Your task to perform on an android device: When is my next meeting? Image 0: 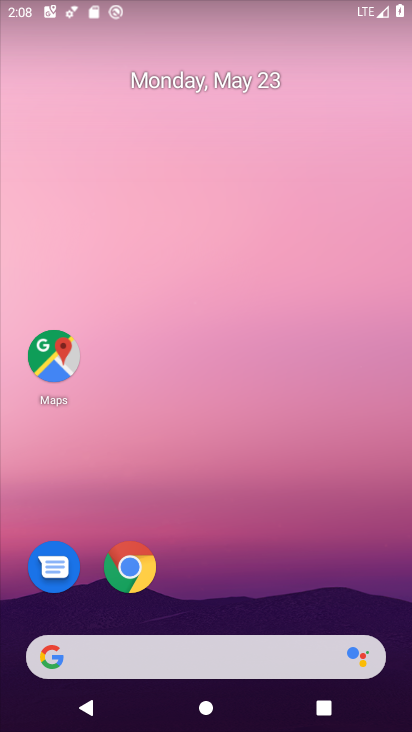
Step 0: click (281, 587)
Your task to perform on an android device: When is my next meeting? Image 1: 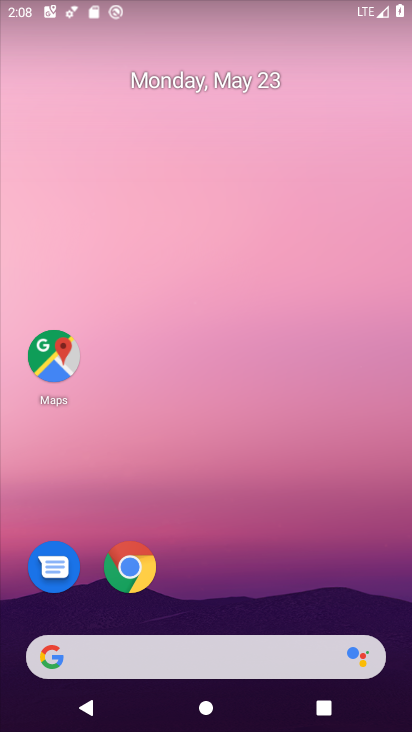
Step 1: drag from (222, 636) to (295, 239)
Your task to perform on an android device: When is my next meeting? Image 2: 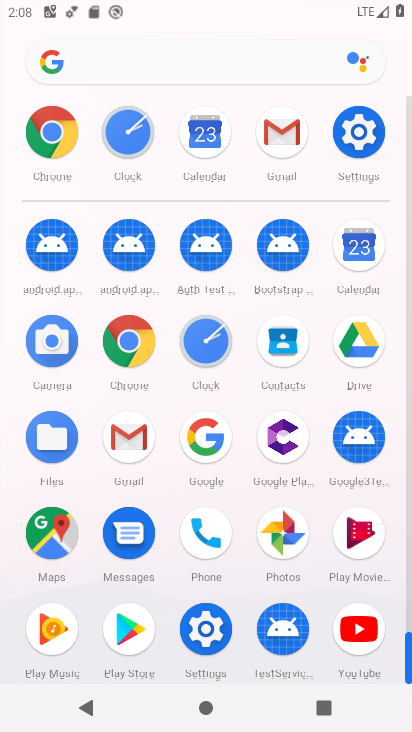
Step 2: click (373, 256)
Your task to perform on an android device: When is my next meeting? Image 3: 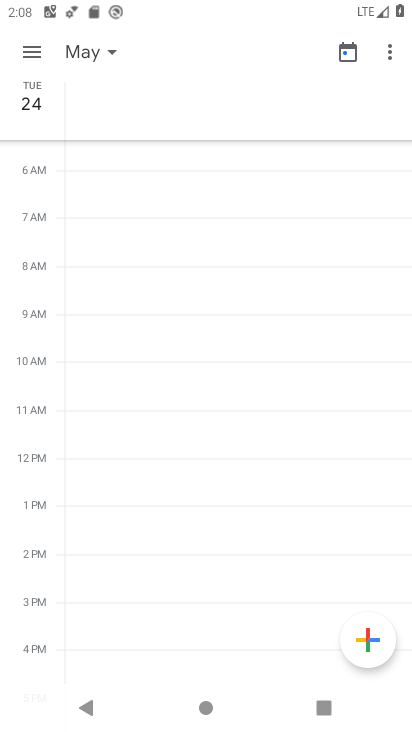
Step 3: click (103, 50)
Your task to perform on an android device: When is my next meeting? Image 4: 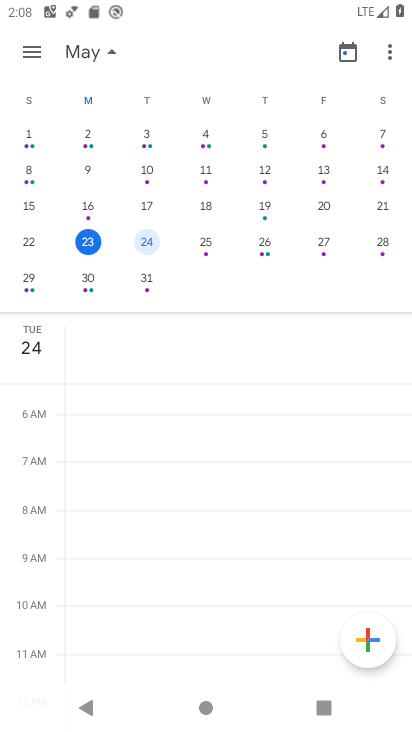
Step 4: click (139, 245)
Your task to perform on an android device: When is my next meeting? Image 5: 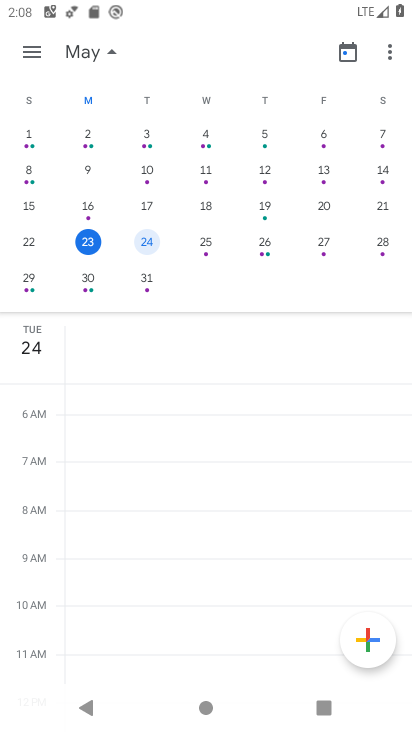
Step 5: click (140, 238)
Your task to perform on an android device: When is my next meeting? Image 6: 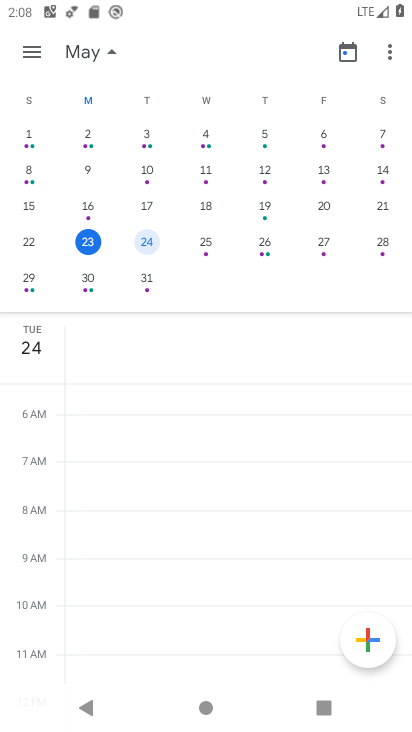
Step 6: click (205, 245)
Your task to perform on an android device: When is my next meeting? Image 7: 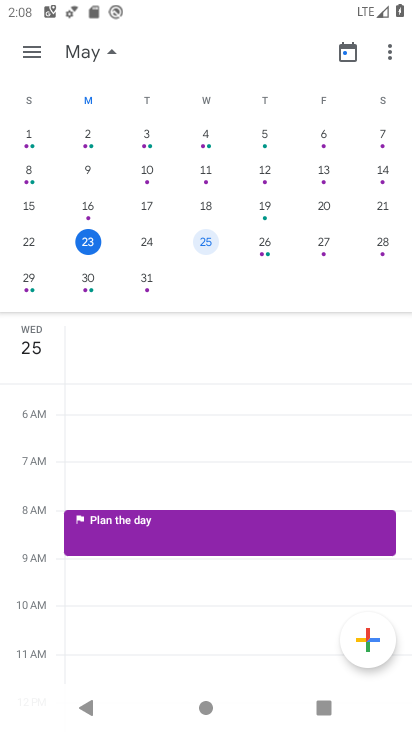
Step 7: click (100, 54)
Your task to perform on an android device: When is my next meeting? Image 8: 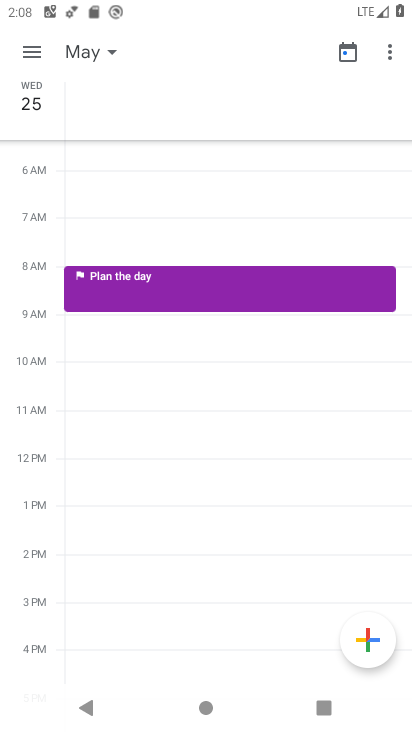
Step 8: task complete